Your task to perform on an android device: turn on data saver in the chrome app Image 0: 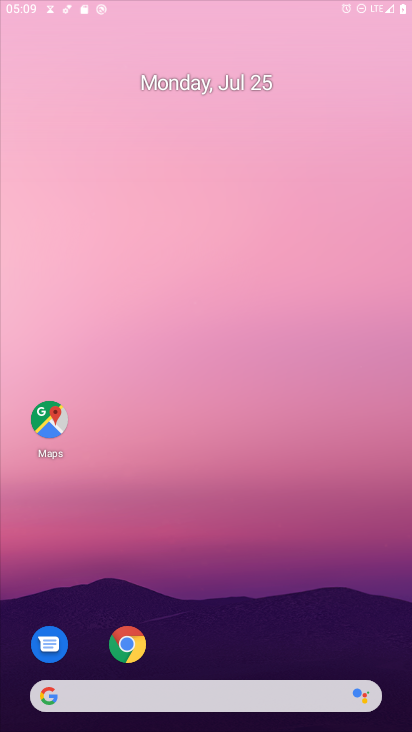
Step 0: press home button
Your task to perform on an android device: turn on data saver in the chrome app Image 1: 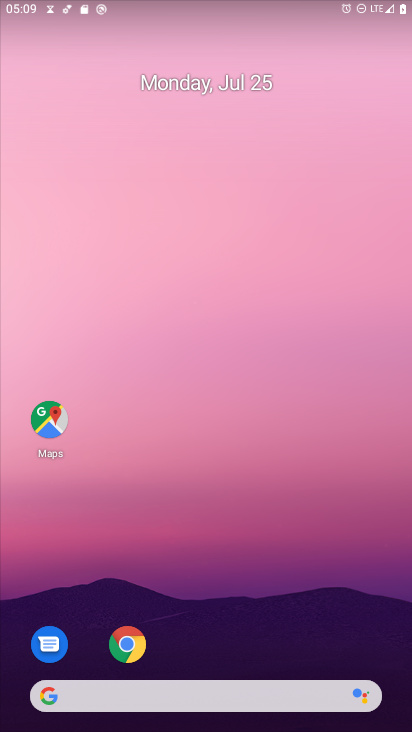
Step 1: drag from (306, 610) to (308, 104)
Your task to perform on an android device: turn on data saver in the chrome app Image 2: 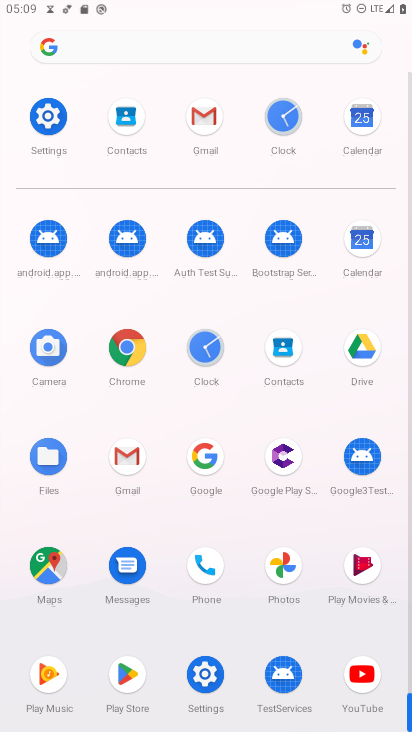
Step 2: click (127, 350)
Your task to perform on an android device: turn on data saver in the chrome app Image 3: 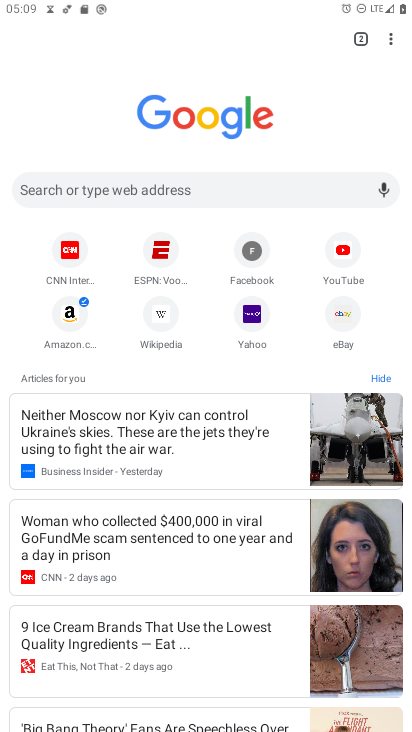
Step 3: drag from (393, 32) to (276, 330)
Your task to perform on an android device: turn on data saver in the chrome app Image 4: 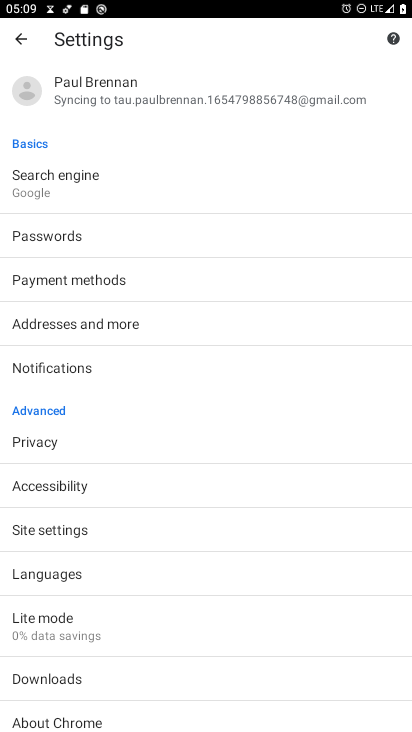
Step 4: click (43, 628)
Your task to perform on an android device: turn on data saver in the chrome app Image 5: 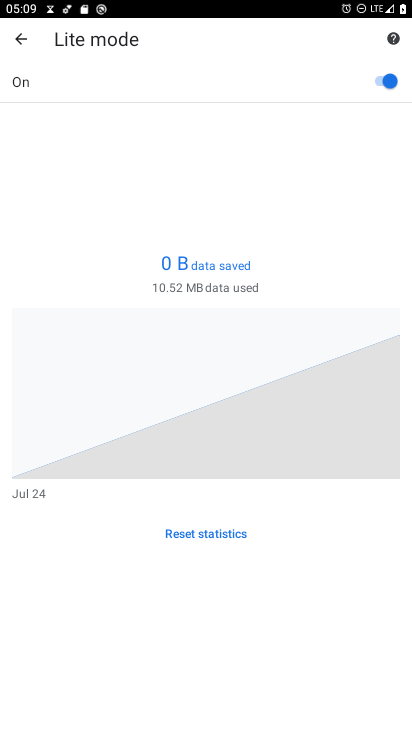
Step 5: task complete